Your task to perform on an android device: Open the stopwatch Image 0: 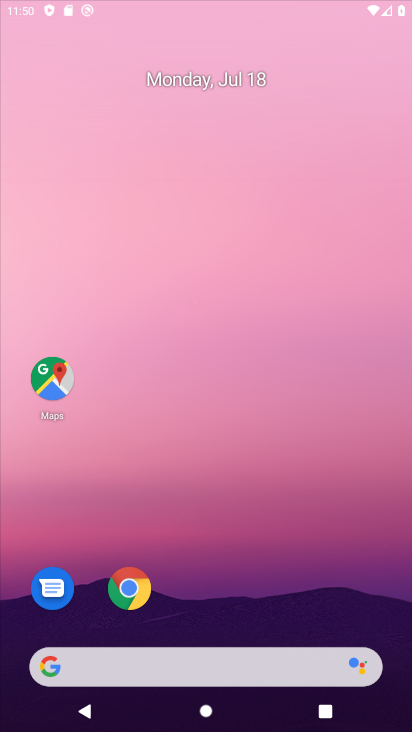
Step 0: click (233, 4)
Your task to perform on an android device: Open the stopwatch Image 1: 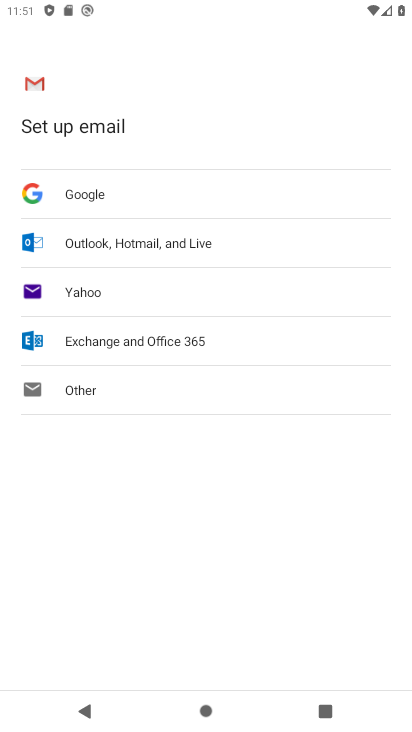
Step 1: press back button
Your task to perform on an android device: Open the stopwatch Image 2: 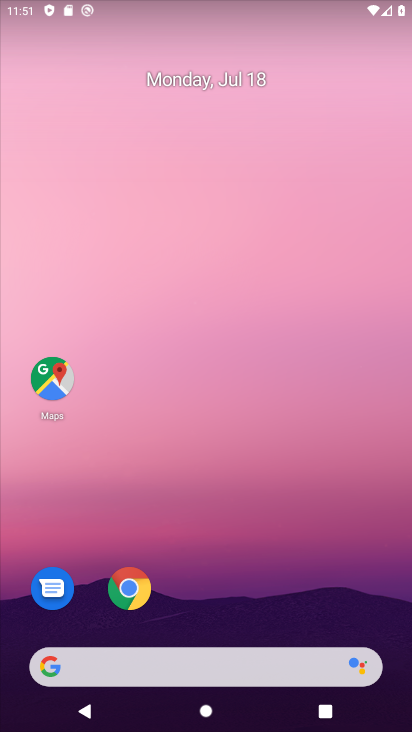
Step 2: drag from (234, 602) to (144, 141)
Your task to perform on an android device: Open the stopwatch Image 3: 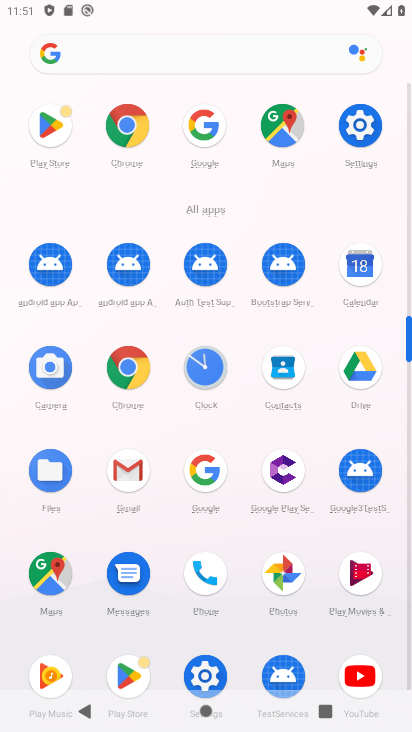
Step 3: click (198, 370)
Your task to perform on an android device: Open the stopwatch Image 4: 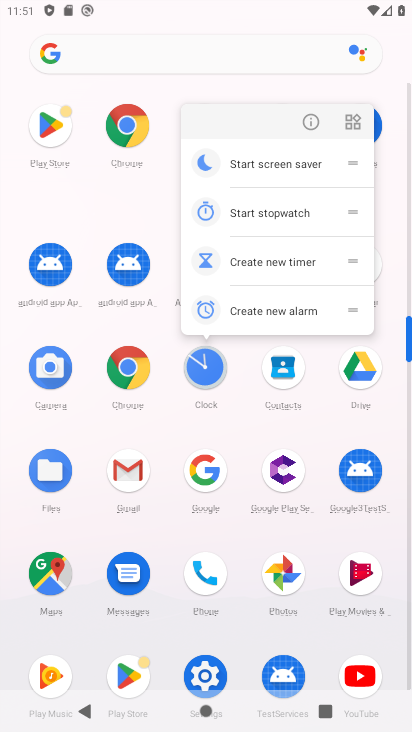
Step 4: click (199, 368)
Your task to perform on an android device: Open the stopwatch Image 5: 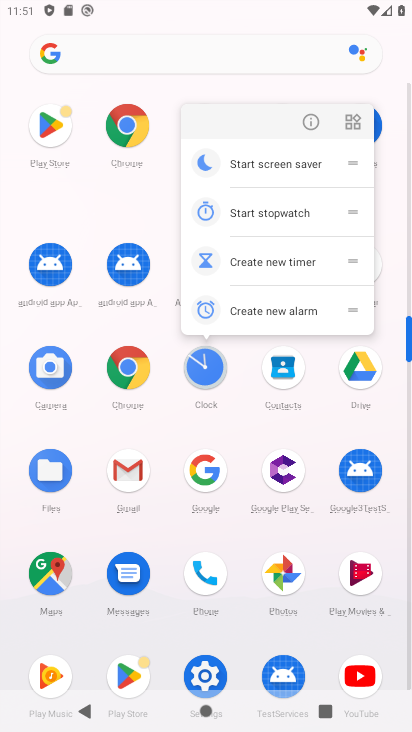
Step 5: click (199, 368)
Your task to perform on an android device: Open the stopwatch Image 6: 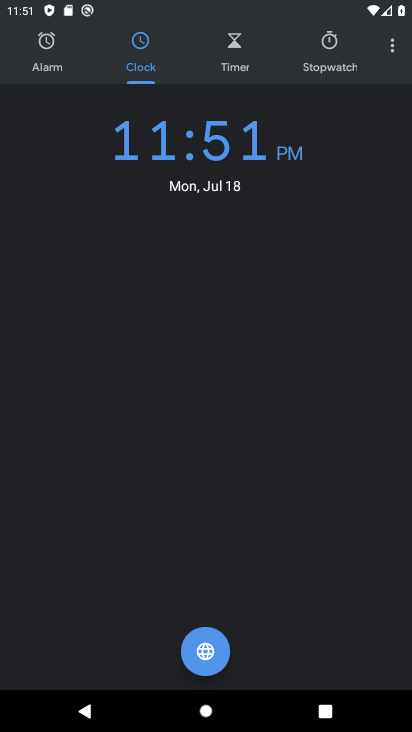
Step 6: click (330, 47)
Your task to perform on an android device: Open the stopwatch Image 7: 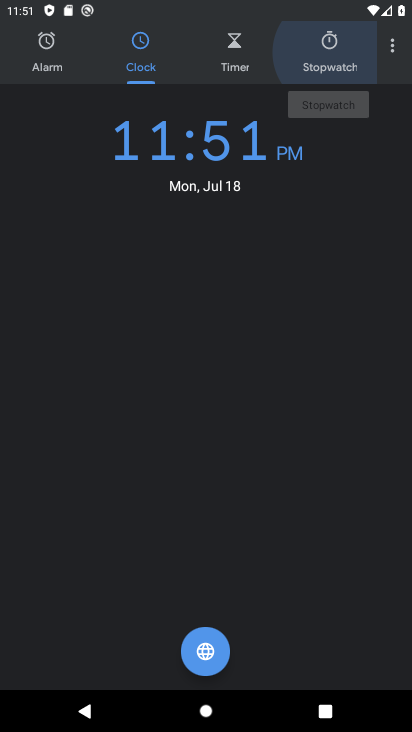
Step 7: click (330, 47)
Your task to perform on an android device: Open the stopwatch Image 8: 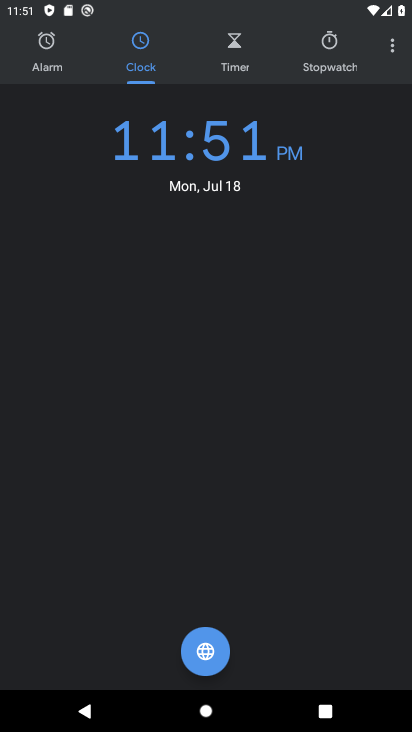
Step 8: click (327, 45)
Your task to perform on an android device: Open the stopwatch Image 9: 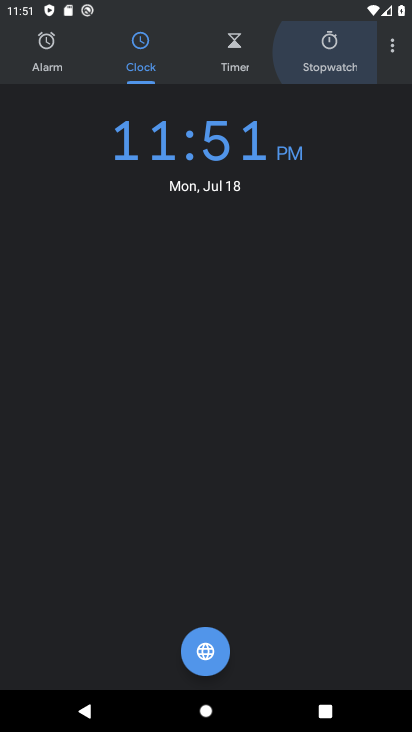
Step 9: click (327, 45)
Your task to perform on an android device: Open the stopwatch Image 10: 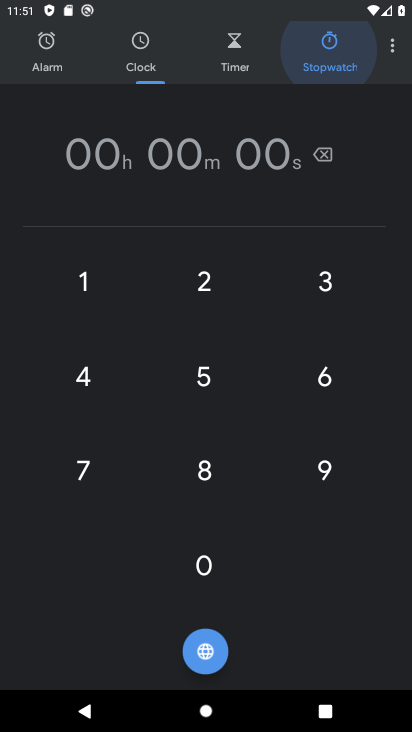
Step 10: click (330, 47)
Your task to perform on an android device: Open the stopwatch Image 11: 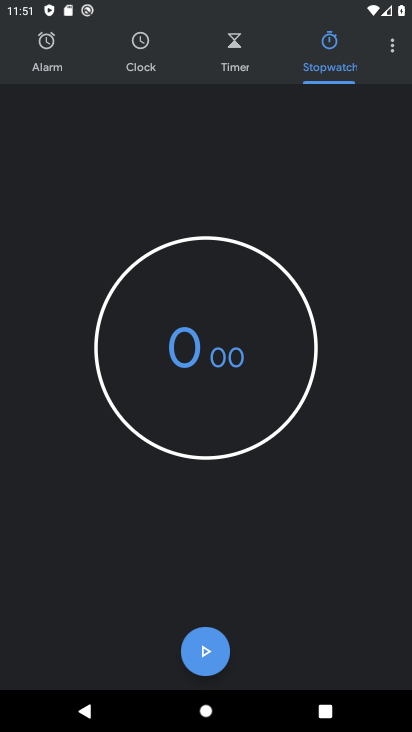
Step 11: click (209, 651)
Your task to perform on an android device: Open the stopwatch Image 12: 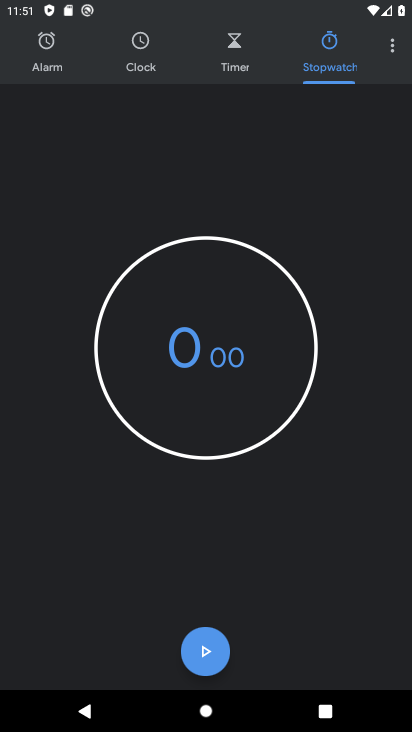
Step 12: click (206, 654)
Your task to perform on an android device: Open the stopwatch Image 13: 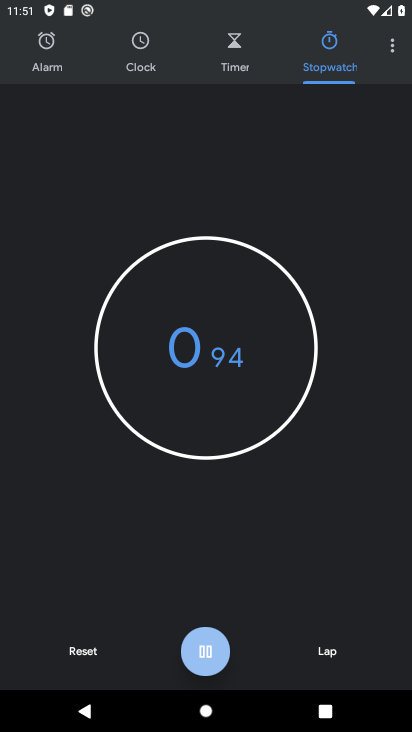
Step 13: click (205, 655)
Your task to perform on an android device: Open the stopwatch Image 14: 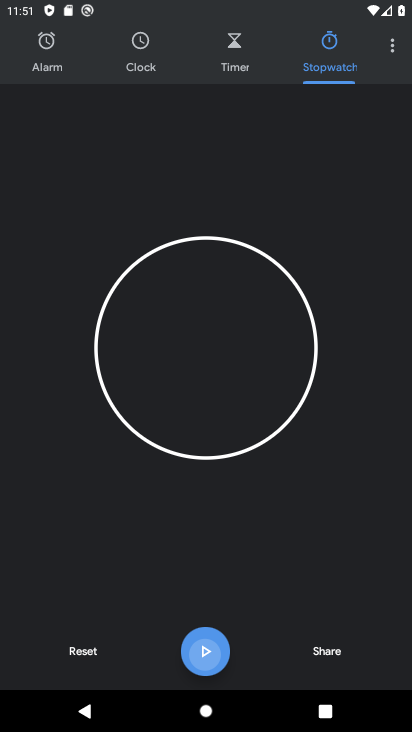
Step 14: click (205, 655)
Your task to perform on an android device: Open the stopwatch Image 15: 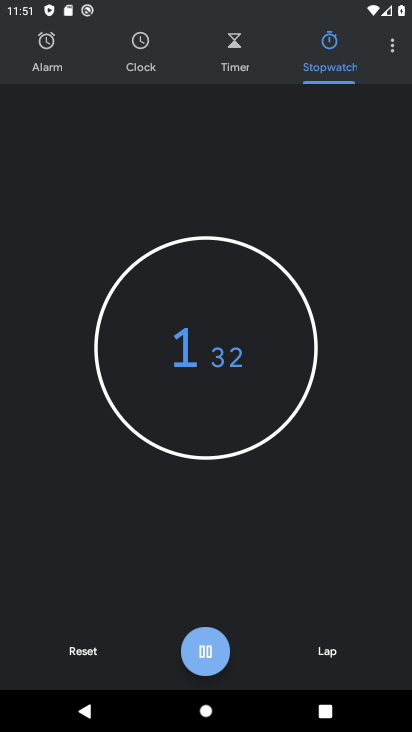
Step 15: click (205, 655)
Your task to perform on an android device: Open the stopwatch Image 16: 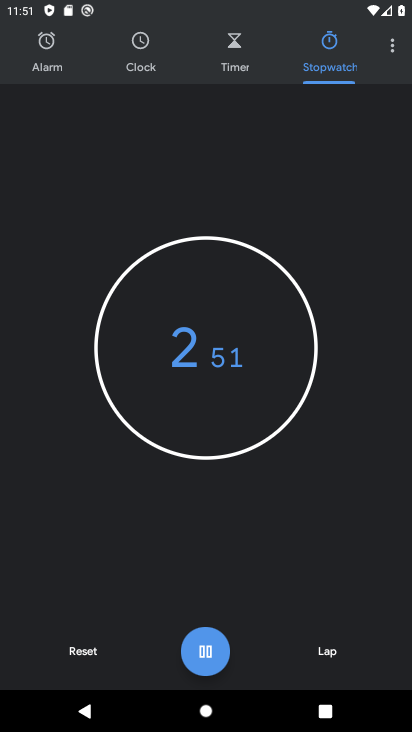
Step 16: click (211, 645)
Your task to perform on an android device: Open the stopwatch Image 17: 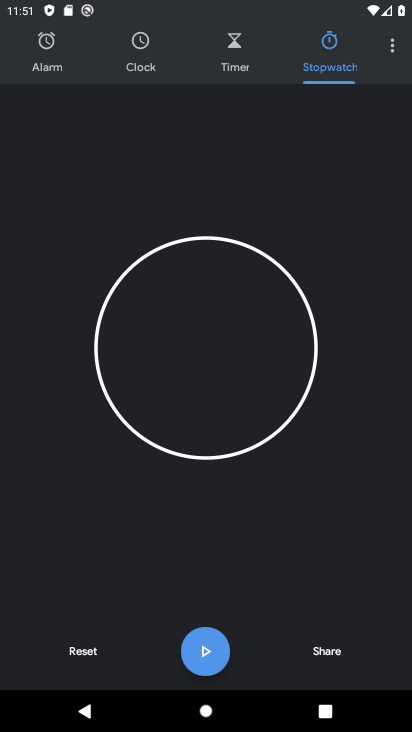
Step 17: task complete